Your task to perform on an android device: turn on the 12-hour format for clock Image 0: 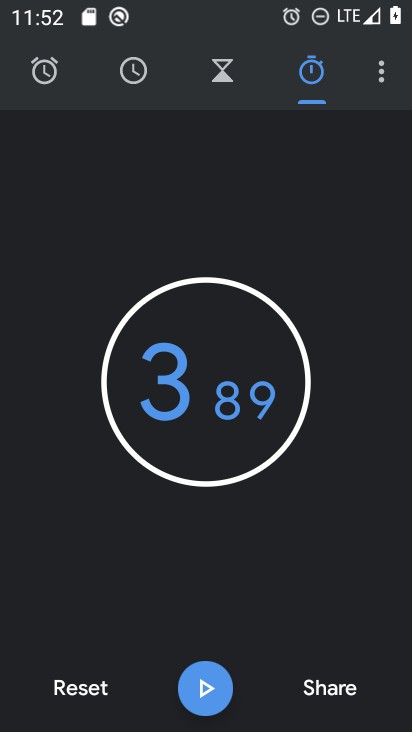
Step 0: press home button
Your task to perform on an android device: turn on the 12-hour format for clock Image 1: 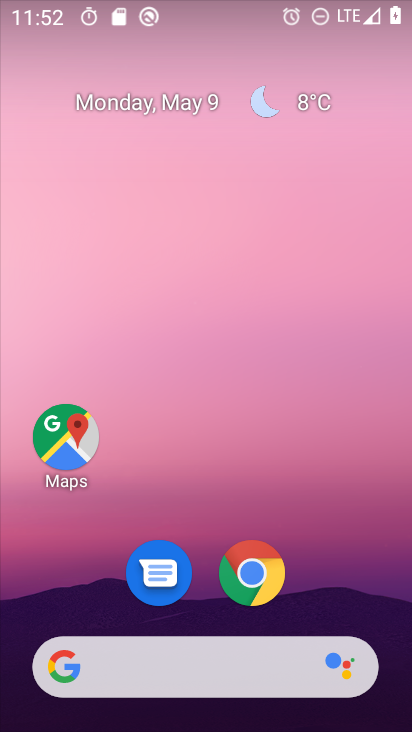
Step 1: drag from (314, 584) to (292, 223)
Your task to perform on an android device: turn on the 12-hour format for clock Image 2: 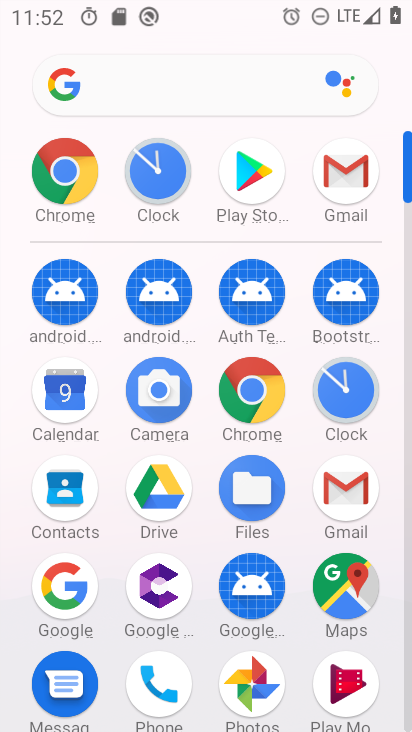
Step 2: click (350, 391)
Your task to perform on an android device: turn on the 12-hour format for clock Image 3: 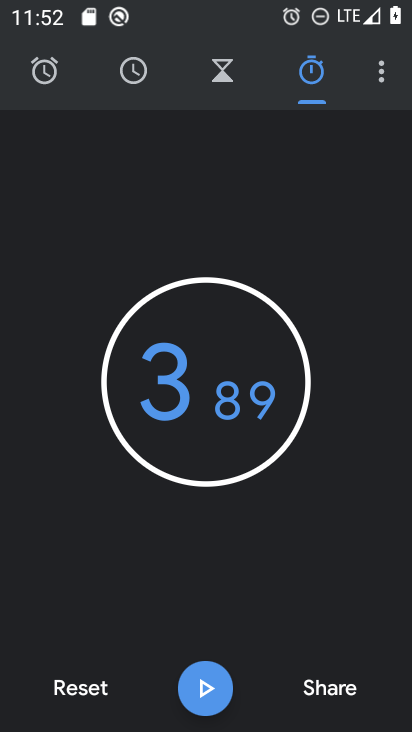
Step 3: drag from (383, 68) to (256, 300)
Your task to perform on an android device: turn on the 12-hour format for clock Image 4: 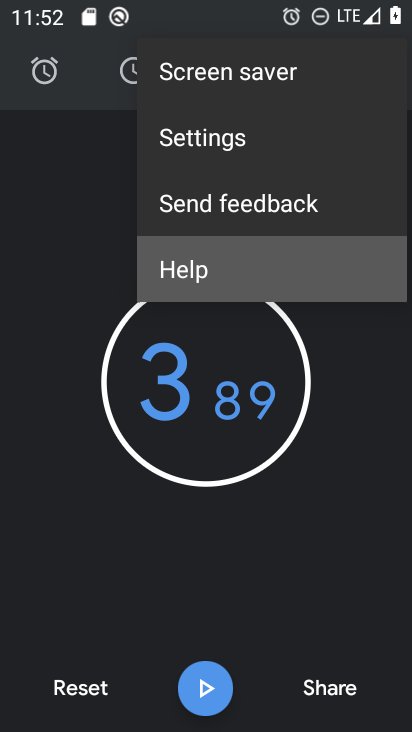
Step 4: drag from (256, 292) to (225, 154)
Your task to perform on an android device: turn on the 12-hour format for clock Image 5: 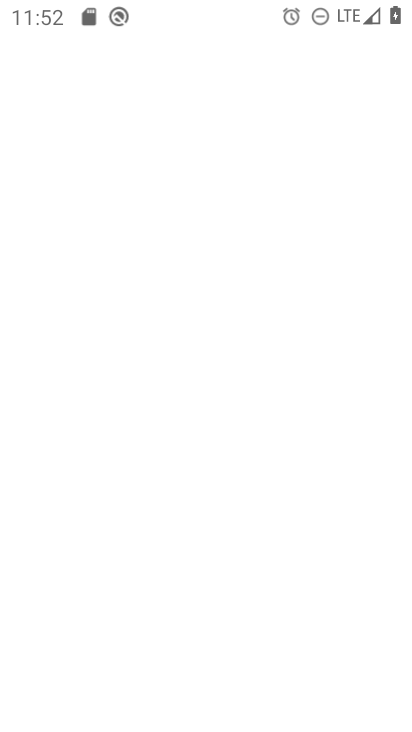
Step 5: click (379, 74)
Your task to perform on an android device: turn on the 12-hour format for clock Image 6: 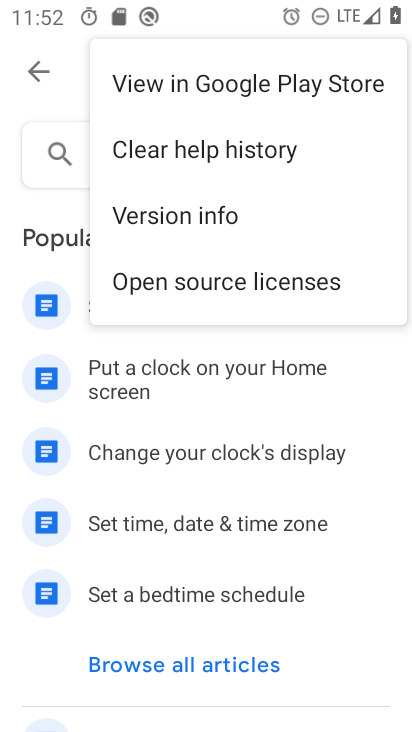
Step 6: press back button
Your task to perform on an android device: turn on the 12-hour format for clock Image 7: 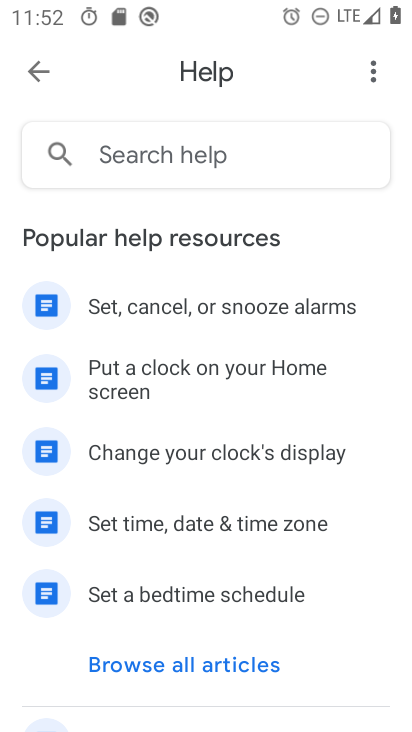
Step 7: press back button
Your task to perform on an android device: turn on the 12-hour format for clock Image 8: 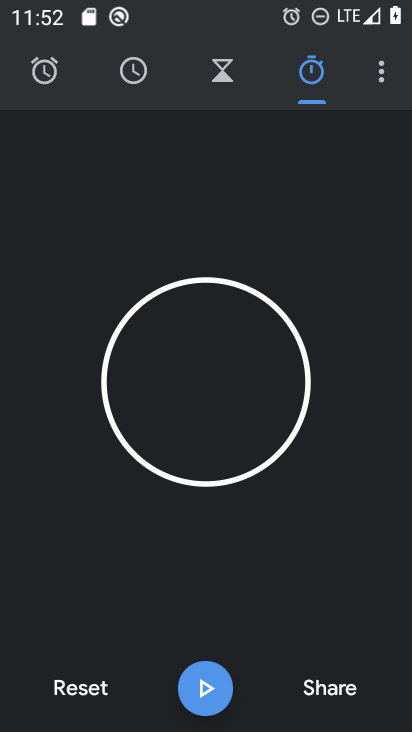
Step 8: click (381, 76)
Your task to perform on an android device: turn on the 12-hour format for clock Image 9: 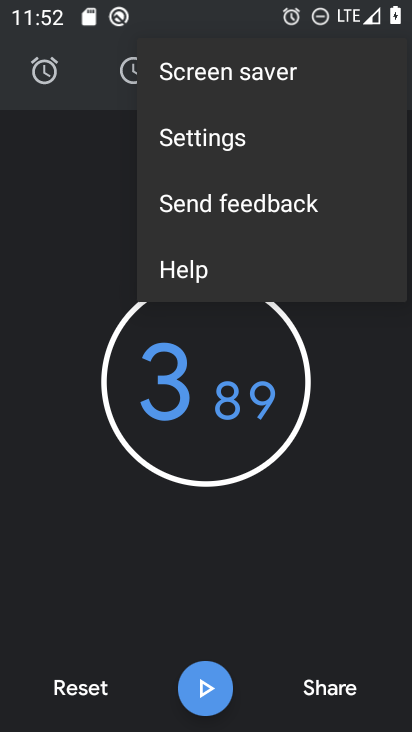
Step 9: click (211, 148)
Your task to perform on an android device: turn on the 12-hour format for clock Image 10: 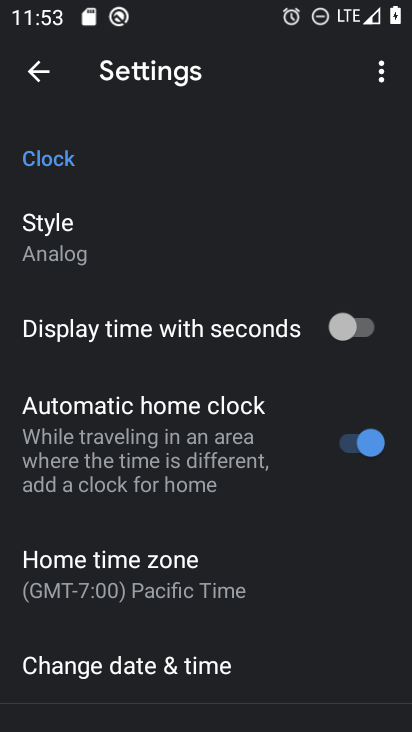
Step 10: click (173, 659)
Your task to perform on an android device: turn on the 12-hour format for clock Image 11: 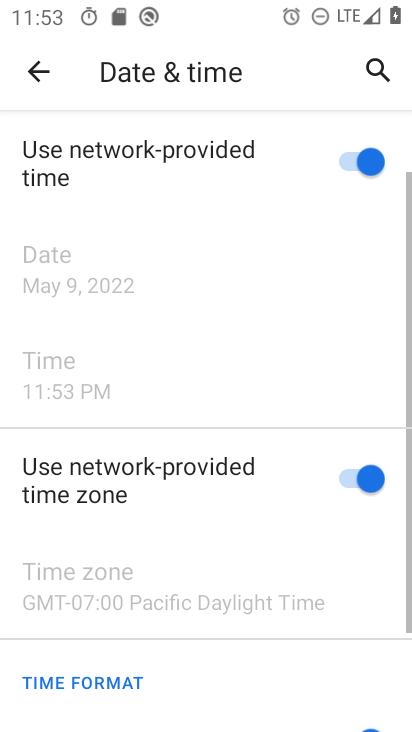
Step 11: task complete